Your task to perform on an android device: turn on data saver in the chrome app Image 0: 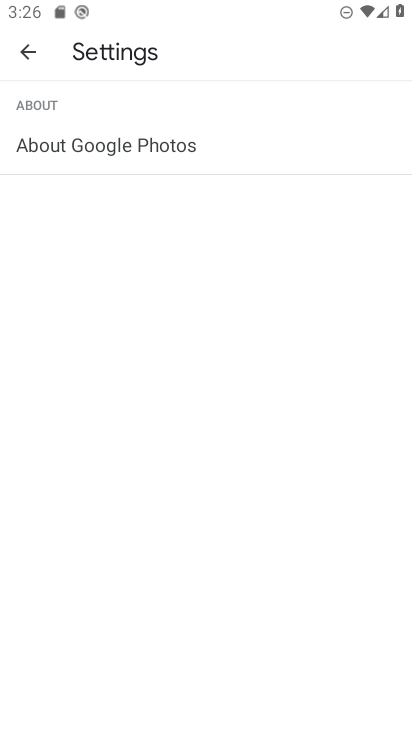
Step 0: press home button
Your task to perform on an android device: turn on data saver in the chrome app Image 1: 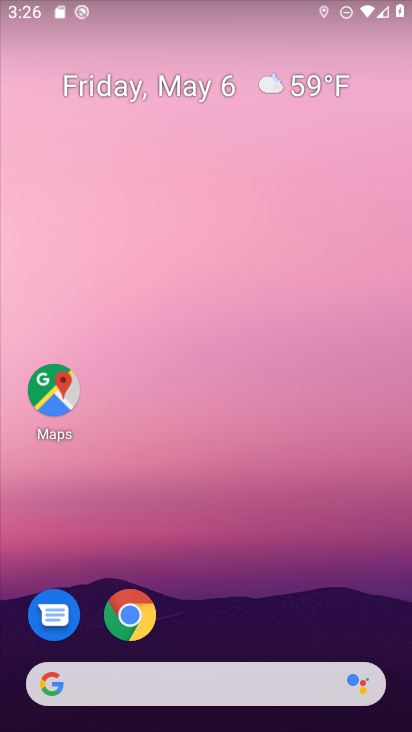
Step 1: click (128, 615)
Your task to perform on an android device: turn on data saver in the chrome app Image 2: 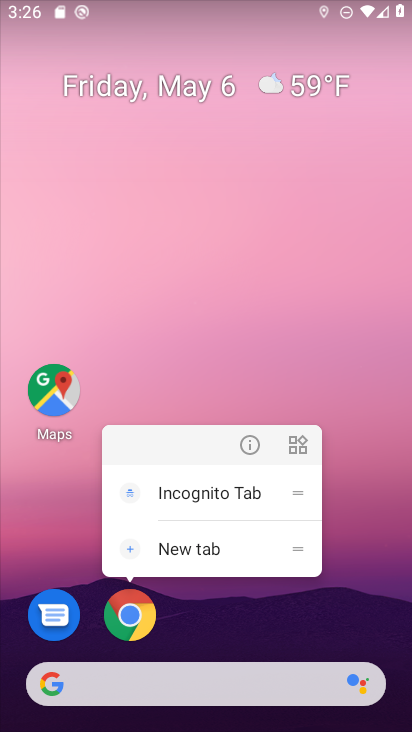
Step 2: click (122, 618)
Your task to perform on an android device: turn on data saver in the chrome app Image 3: 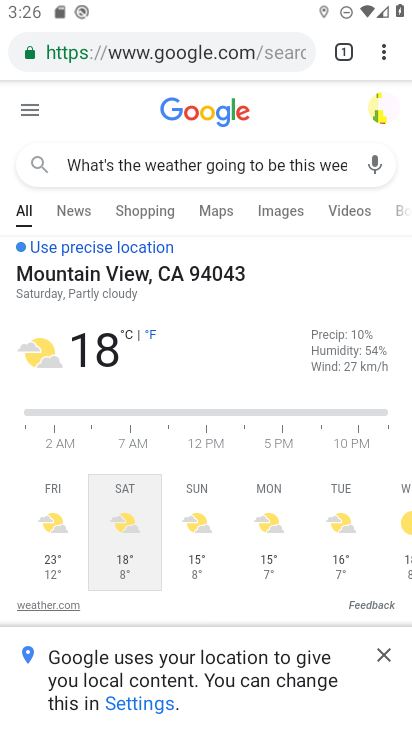
Step 3: drag from (380, 55) to (245, 586)
Your task to perform on an android device: turn on data saver in the chrome app Image 4: 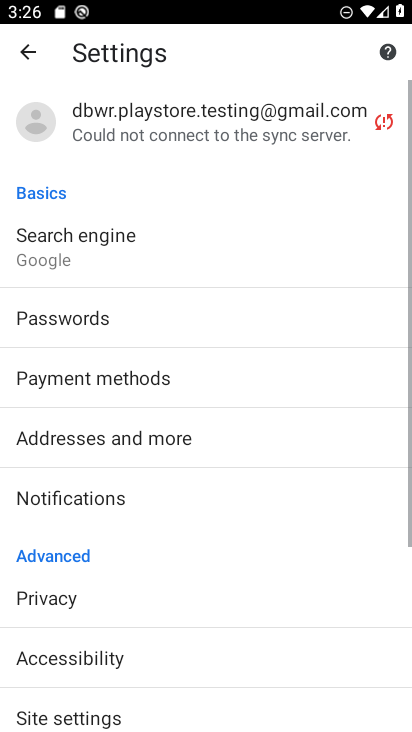
Step 4: drag from (280, 662) to (314, 243)
Your task to perform on an android device: turn on data saver in the chrome app Image 5: 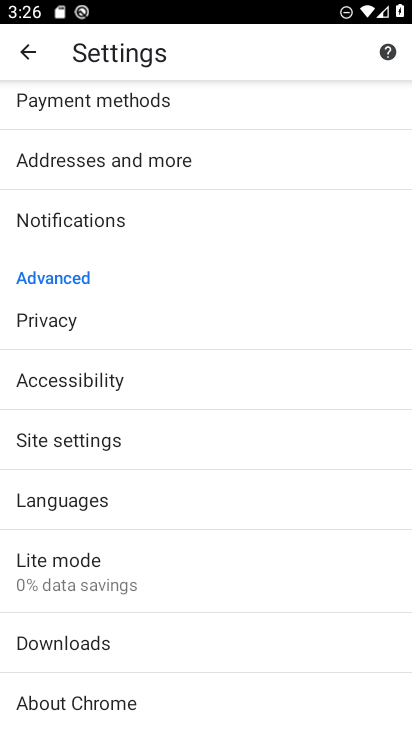
Step 5: drag from (268, 636) to (282, 258)
Your task to perform on an android device: turn on data saver in the chrome app Image 6: 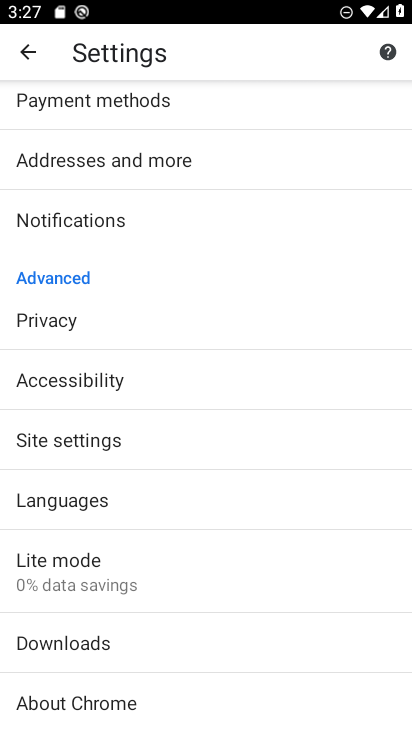
Step 6: click (86, 566)
Your task to perform on an android device: turn on data saver in the chrome app Image 7: 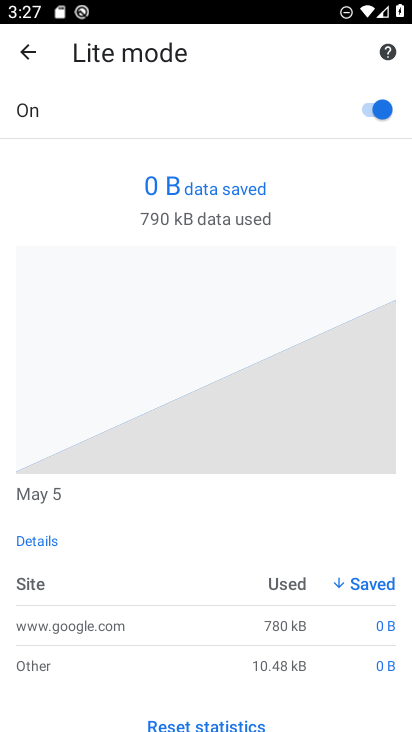
Step 7: task complete